Your task to perform on an android device: turn off improve location accuracy Image 0: 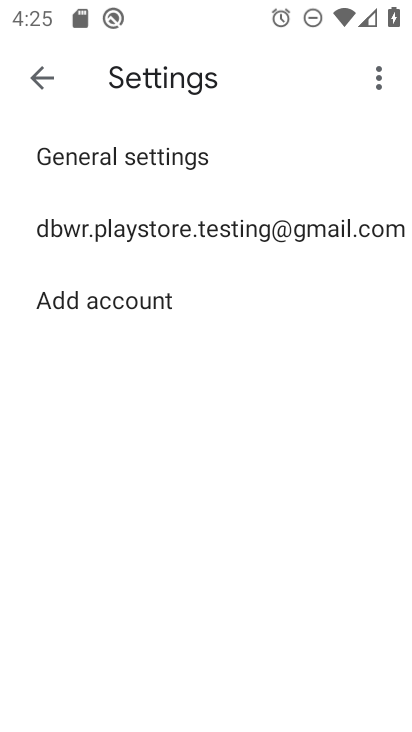
Step 0: press home button
Your task to perform on an android device: turn off improve location accuracy Image 1: 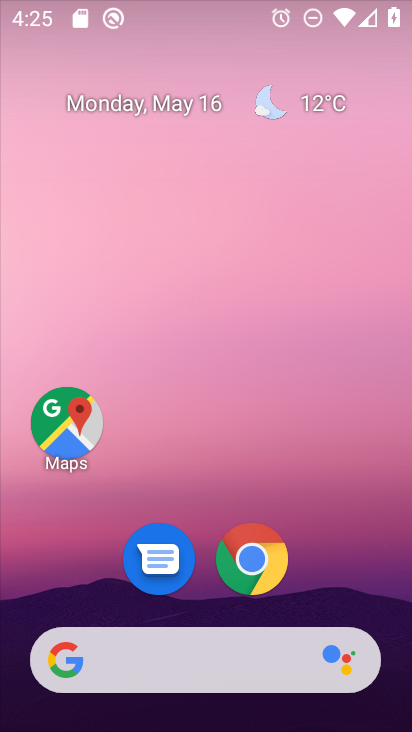
Step 1: drag from (322, 584) to (297, 175)
Your task to perform on an android device: turn off improve location accuracy Image 2: 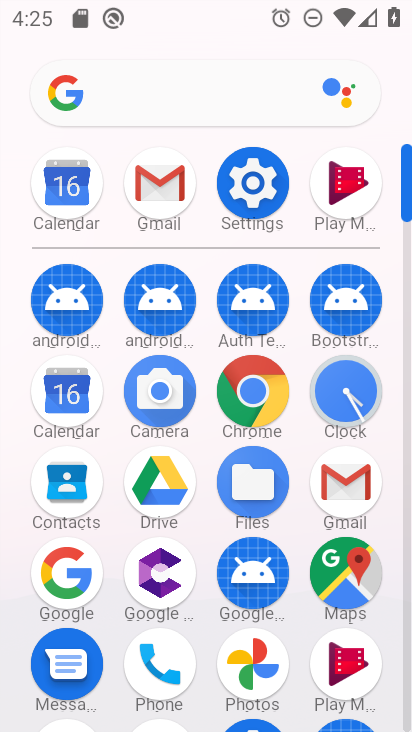
Step 2: click (261, 228)
Your task to perform on an android device: turn off improve location accuracy Image 3: 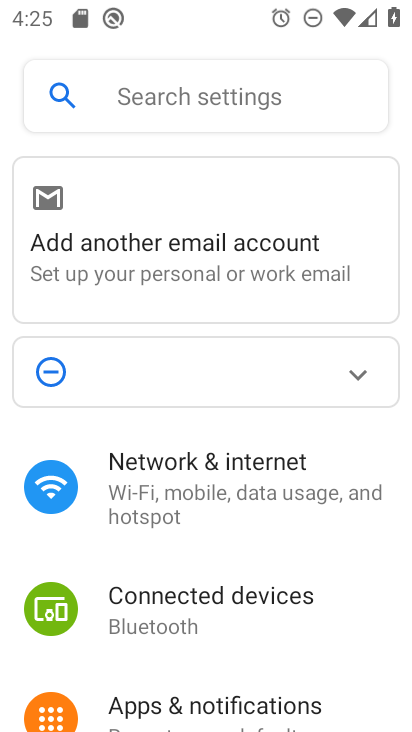
Step 3: drag from (188, 596) to (250, 128)
Your task to perform on an android device: turn off improve location accuracy Image 4: 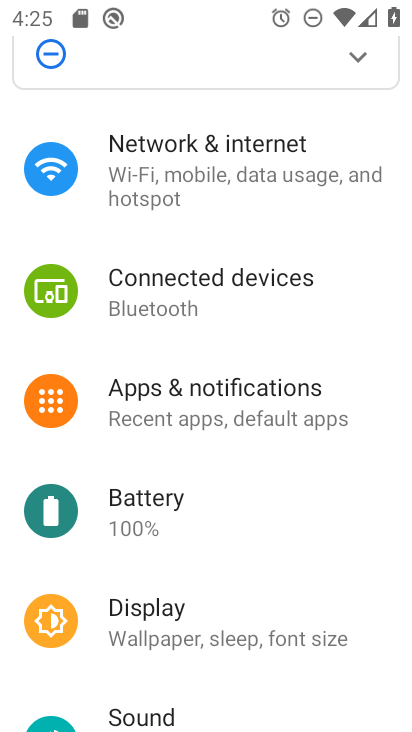
Step 4: drag from (211, 648) to (207, 99)
Your task to perform on an android device: turn off improve location accuracy Image 5: 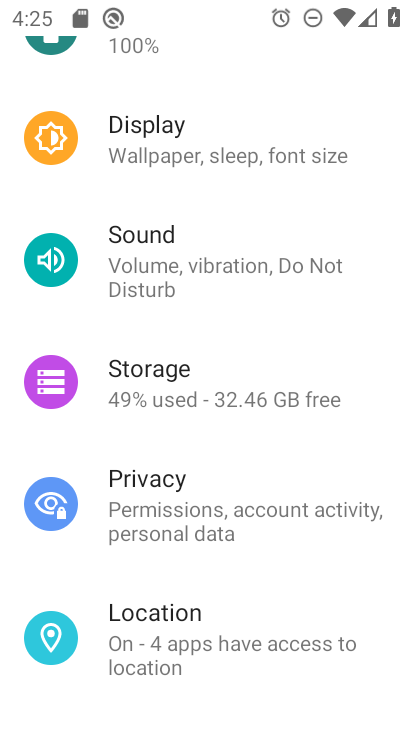
Step 5: click (209, 654)
Your task to perform on an android device: turn off improve location accuracy Image 6: 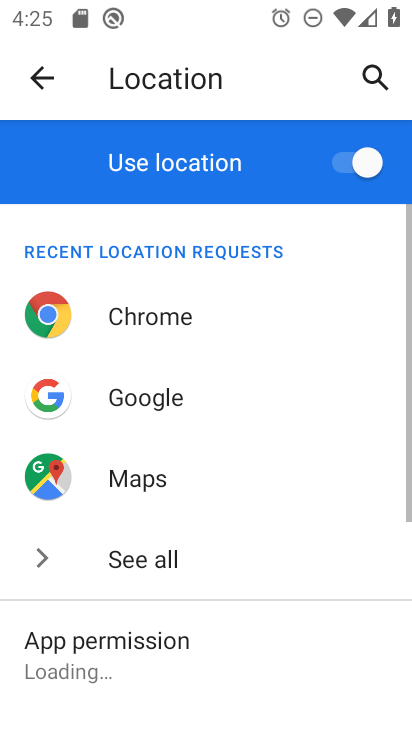
Step 6: drag from (209, 654) to (245, 219)
Your task to perform on an android device: turn off improve location accuracy Image 7: 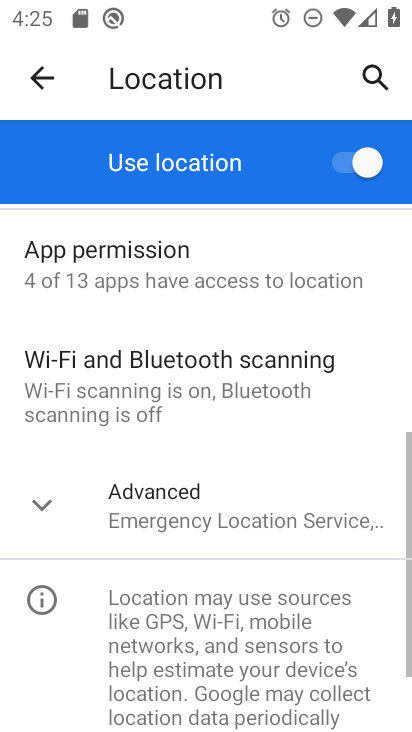
Step 7: click (168, 477)
Your task to perform on an android device: turn off improve location accuracy Image 8: 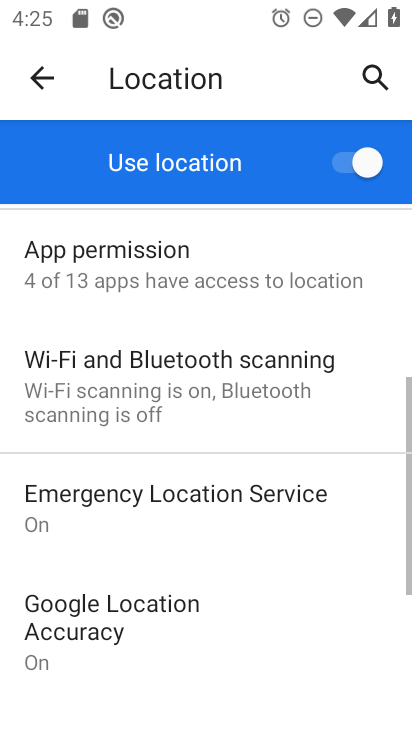
Step 8: drag from (166, 580) to (170, 430)
Your task to perform on an android device: turn off improve location accuracy Image 9: 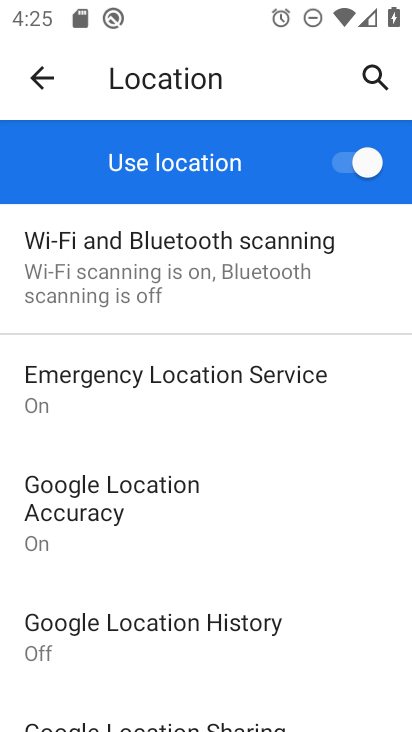
Step 9: click (165, 546)
Your task to perform on an android device: turn off improve location accuracy Image 10: 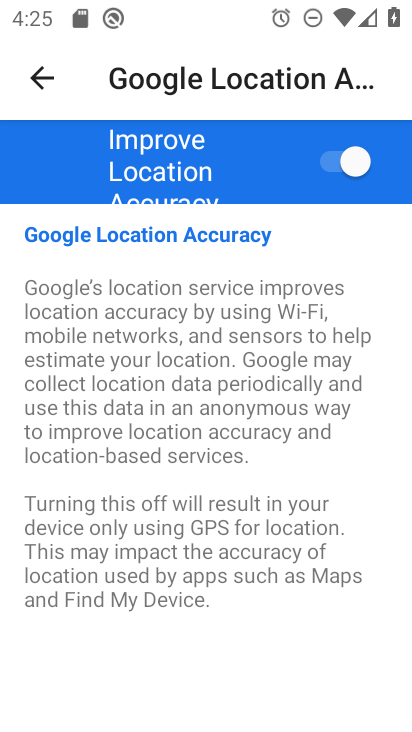
Step 10: click (337, 174)
Your task to perform on an android device: turn off improve location accuracy Image 11: 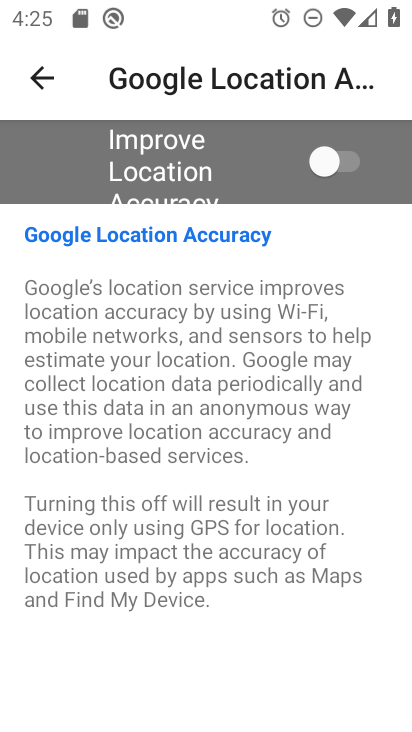
Step 11: task complete